Your task to perform on an android device: search for starred emails in the gmail app Image 0: 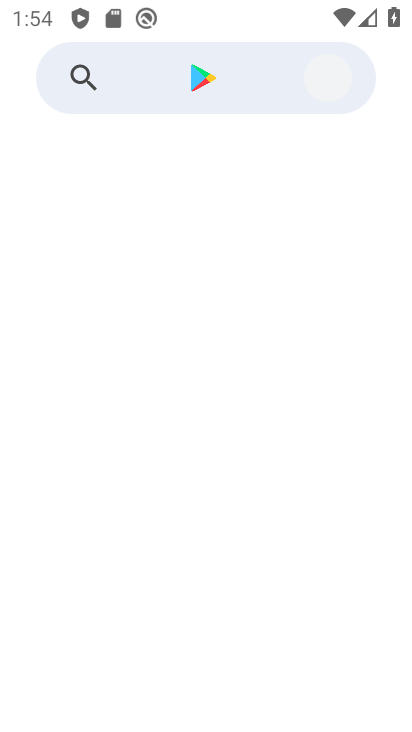
Step 0: press home button
Your task to perform on an android device: search for starred emails in the gmail app Image 1: 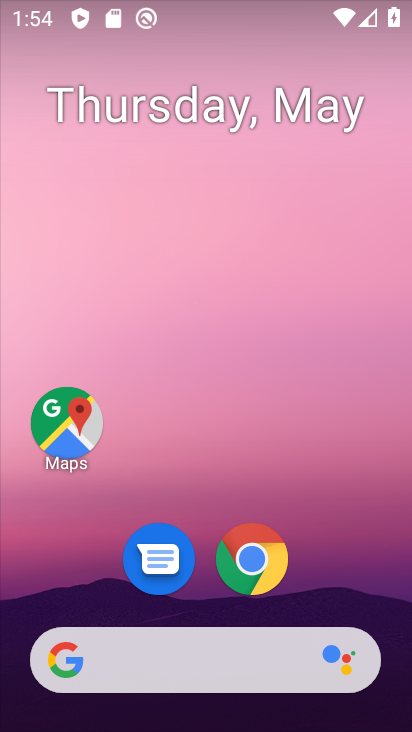
Step 1: drag from (188, 586) to (226, 112)
Your task to perform on an android device: search for starred emails in the gmail app Image 2: 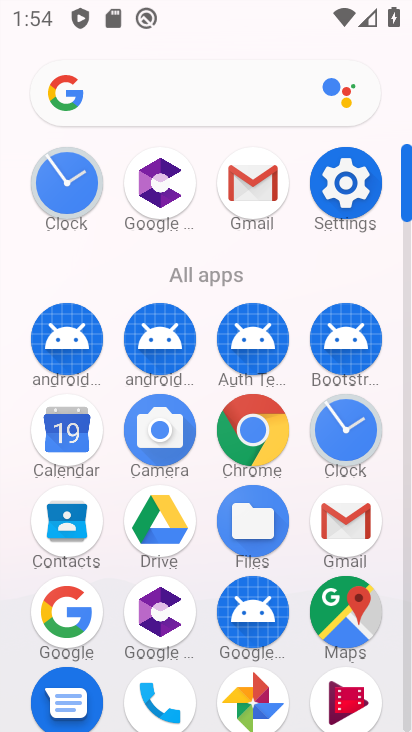
Step 2: click (246, 180)
Your task to perform on an android device: search for starred emails in the gmail app Image 3: 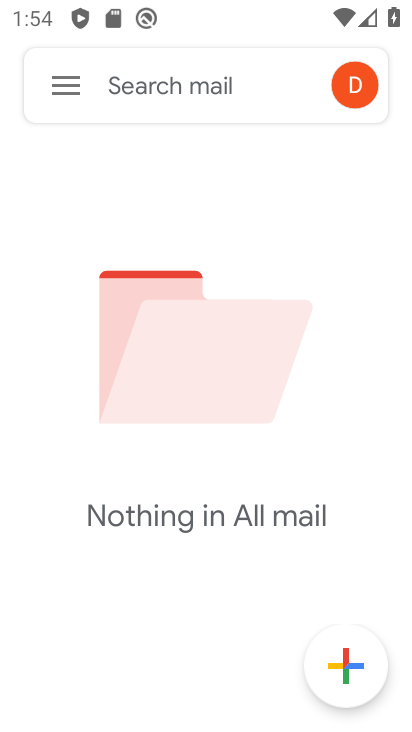
Step 3: click (68, 85)
Your task to perform on an android device: search for starred emails in the gmail app Image 4: 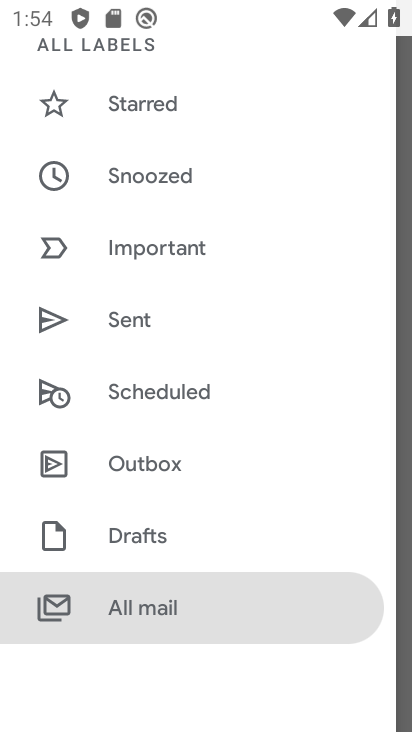
Step 4: click (144, 100)
Your task to perform on an android device: search for starred emails in the gmail app Image 5: 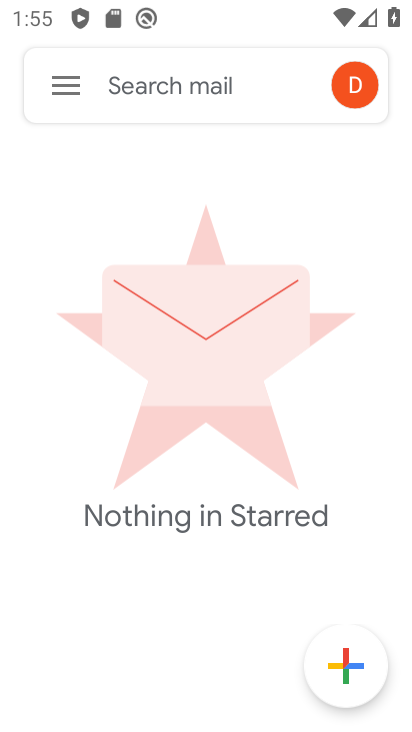
Step 5: task complete